Your task to perform on an android device: Search for sushi restaurants on Maps Image 0: 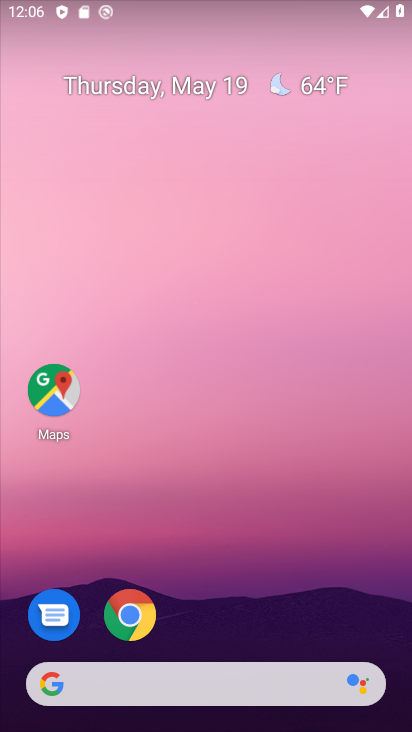
Step 0: drag from (272, 600) to (280, 133)
Your task to perform on an android device: Search for sushi restaurants on Maps Image 1: 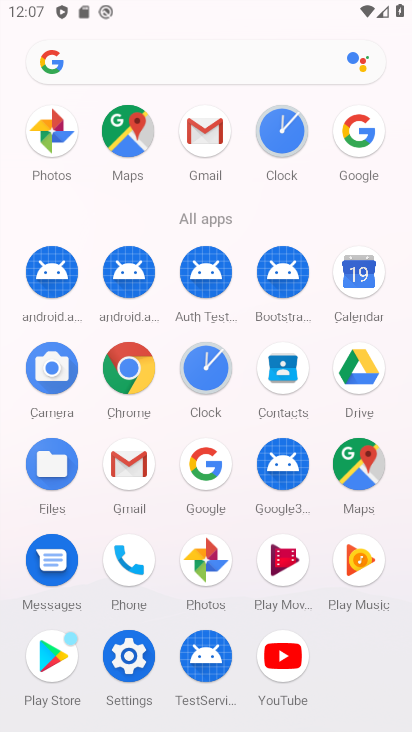
Step 1: click (357, 477)
Your task to perform on an android device: Search for sushi restaurants on Maps Image 2: 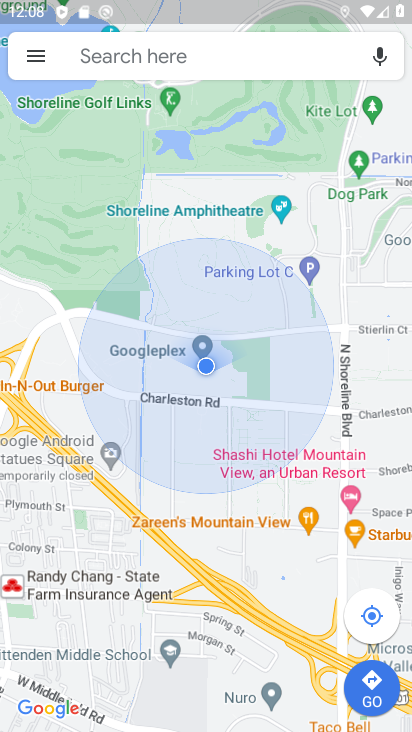
Step 2: click (167, 56)
Your task to perform on an android device: Search for sushi restaurants on Maps Image 3: 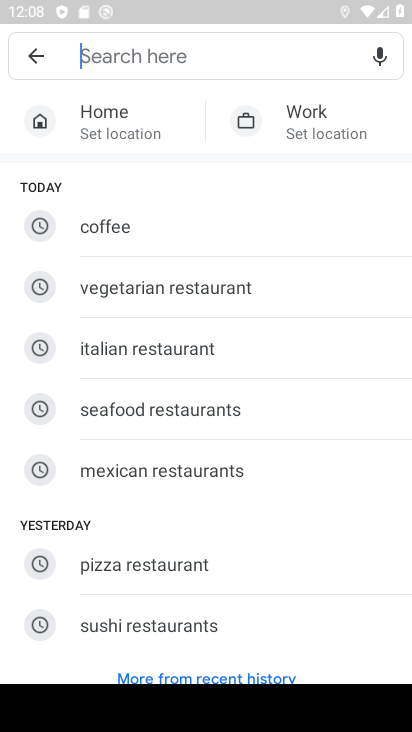
Step 3: drag from (154, 506) to (161, 319)
Your task to perform on an android device: Search for sushi restaurants on Maps Image 4: 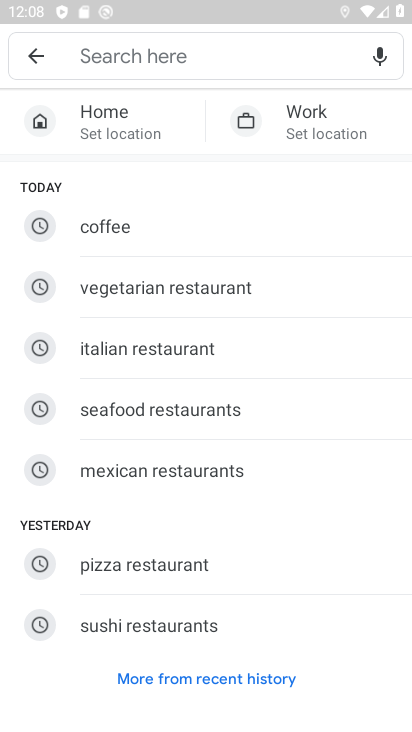
Step 4: click (159, 620)
Your task to perform on an android device: Search for sushi restaurants on Maps Image 5: 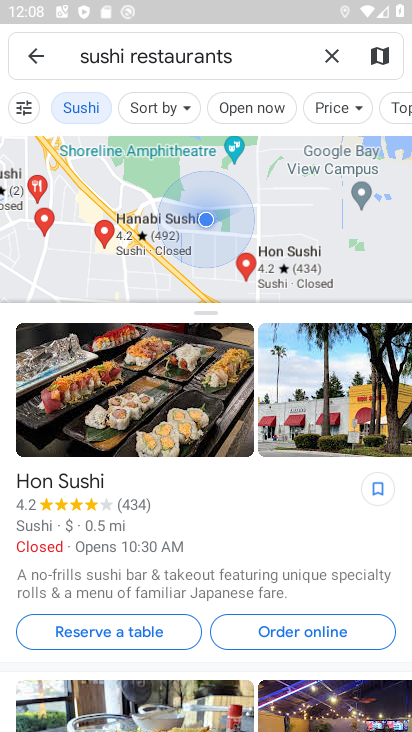
Step 5: task complete